Your task to perform on an android device: Is it going to rain tomorrow? Image 0: 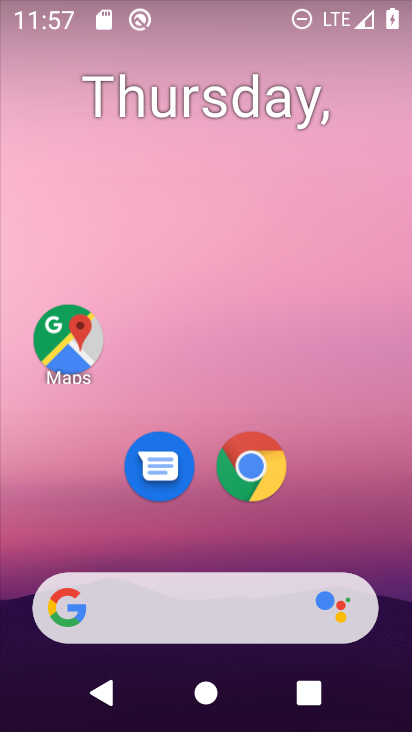
Step 0: drag from (57, 266) to (394, 255)
Your task to perform on an android device: Is it going to rain tomorrow? Image 1: 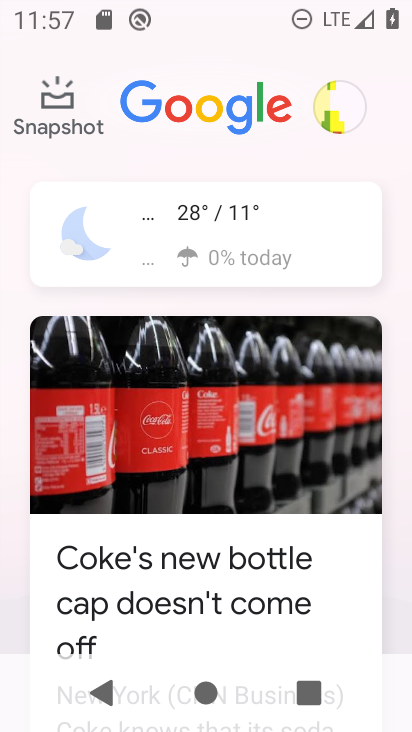
Step 1: click (238, 223)
Your task to perform on an android device: Is it going to rain tomorrow? Image 2: 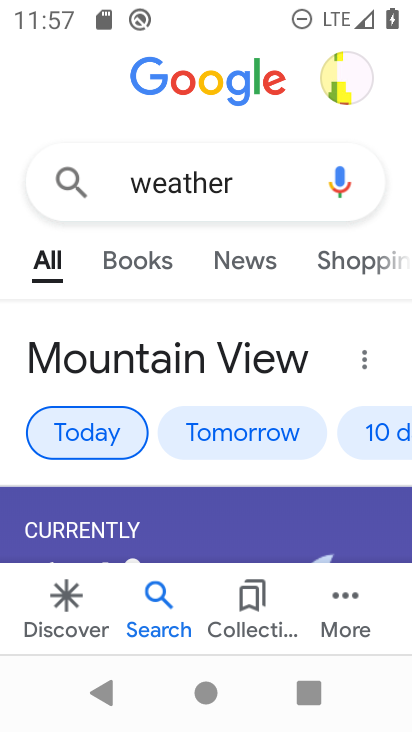
Step 2: click (225, 428)
Your task to perform on an android device: Is it going to rain tomorrow? Image 3: 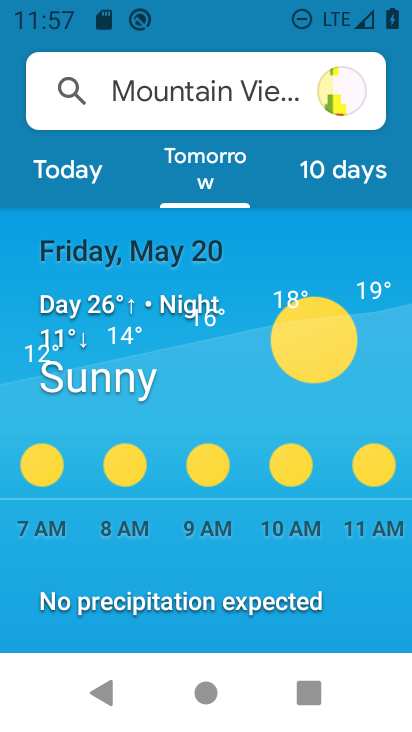
Step 3: task complete